Your task to perform on an android device: change alarm snooze length Image 0: 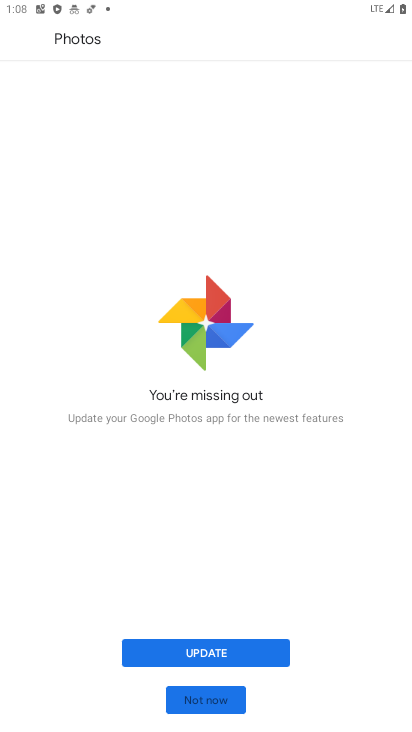
Step 0: click (199, 641)
Your task to perform on an android device: change alarm snooze length Image 1: 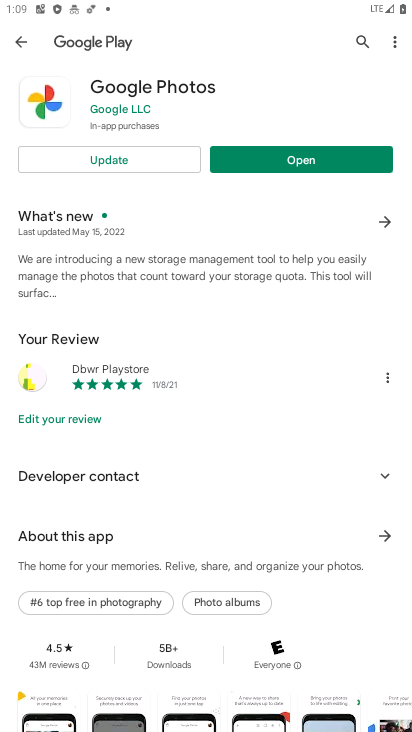
Step 1: click (276, 146)
Your task to perform on an android device: change alarm snooze length Image 2: 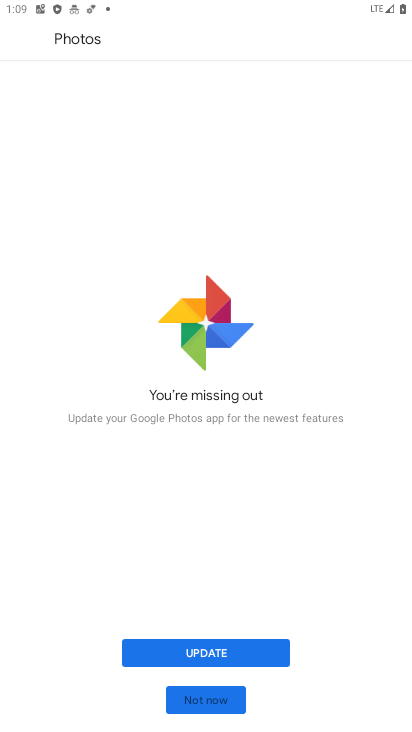
Step 2: press home button
Your task to perform on an android device: change alarm snooze length Image 3: 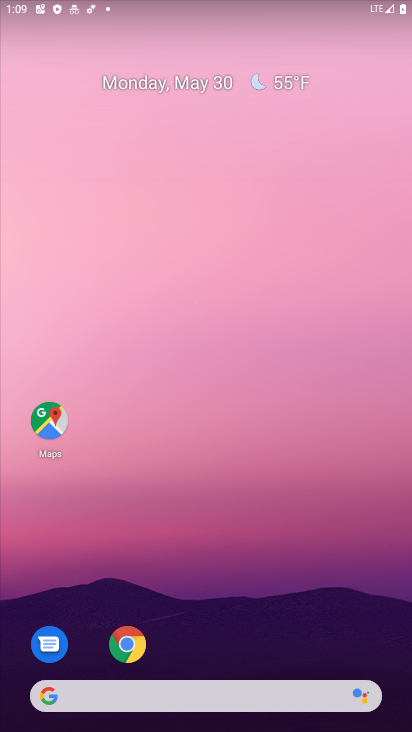
Step 3: click (298, 607)
Your task to perform on an android device: change alarm snooze length Image 4: 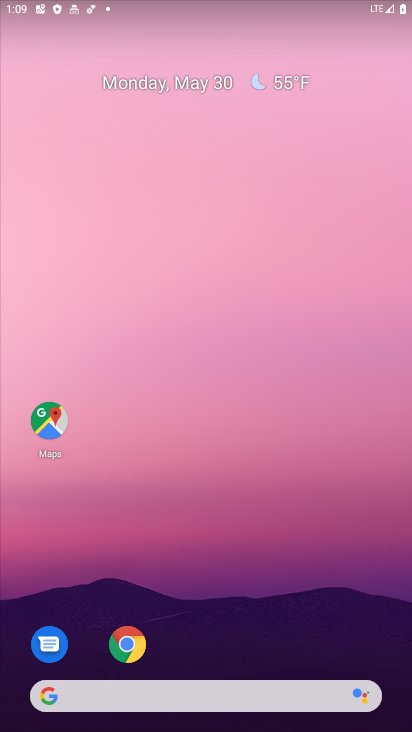
Step 4: drag from (298, 607) to (206, 46)
Your task to perform on an android device: change alarm snooze length Image 5: 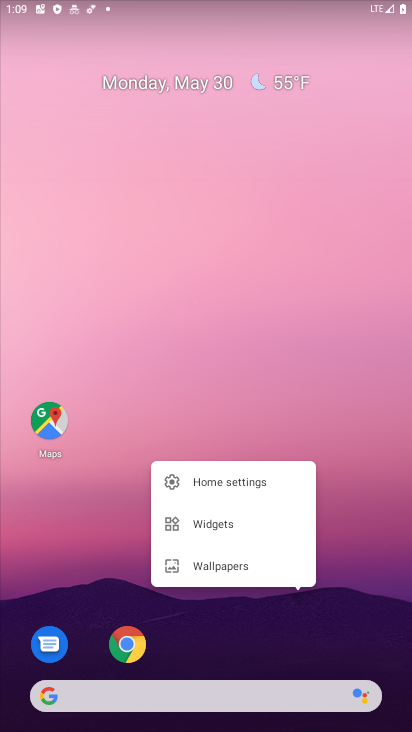
Step 5: click (206, 46)
Your task to perform on an android device: change alarm snooze length Image 6: 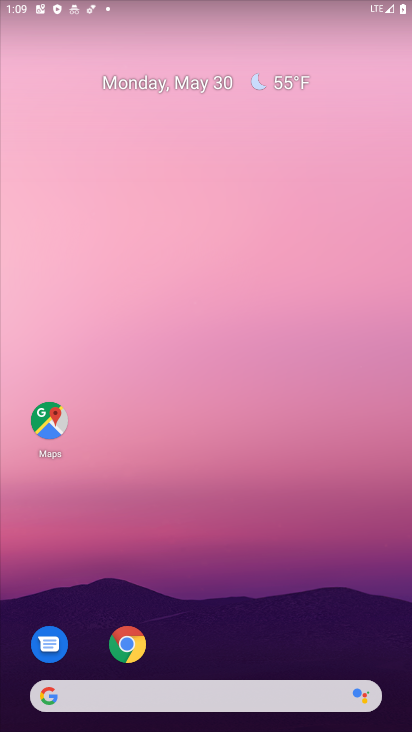
Step 6: drag from (292, 606) to (188, 87)
Your task to perform on an android device: change alarm snooze length Image 7: 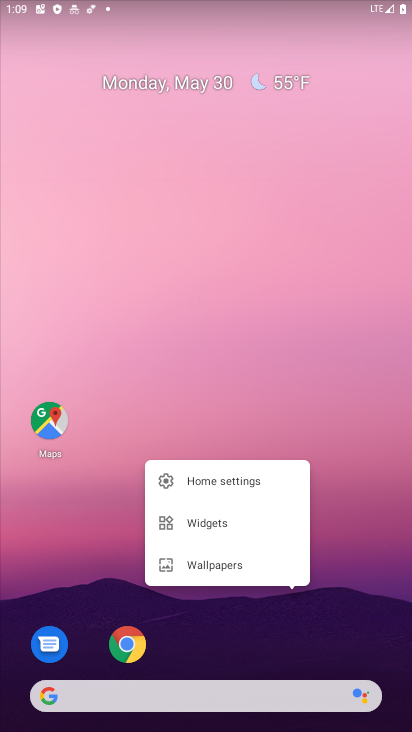
Step 7: click (328, 346)
Your task to perform on an android device: change alarm snooze length Image 8: 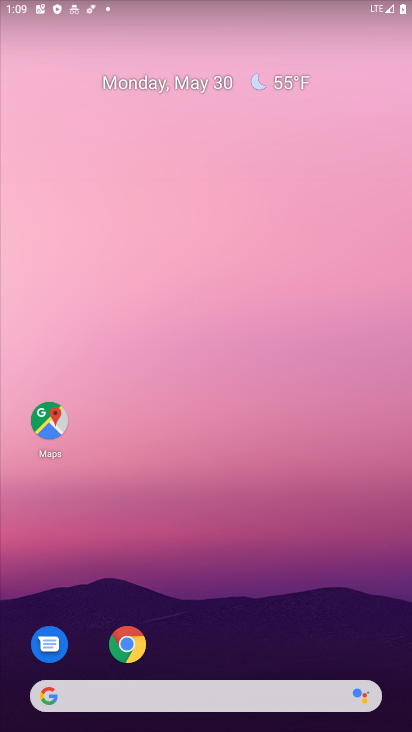
Step 8: drag from (282, 563) to (174, 28)
Your task to perform on an android device: change alarm snooze length Image 9: 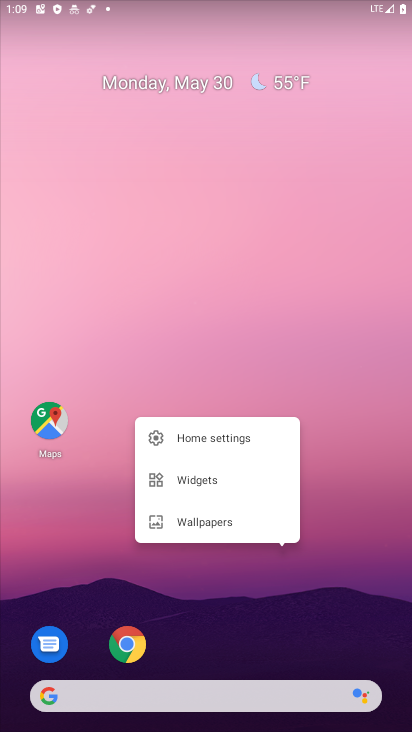
Step 9: click (271, 269)
Your task to perform on an android device: change alarm snooze length Image 10: 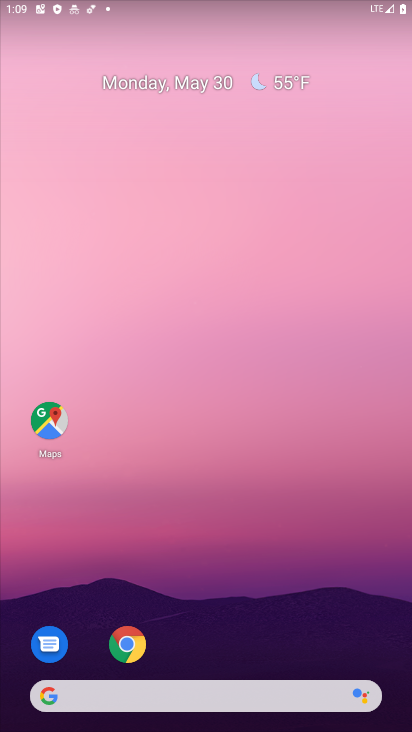
Step 10: drag from (257, 572) to (229, 71)
Your task to perform on an android device: change alarm snooze length Image 11: 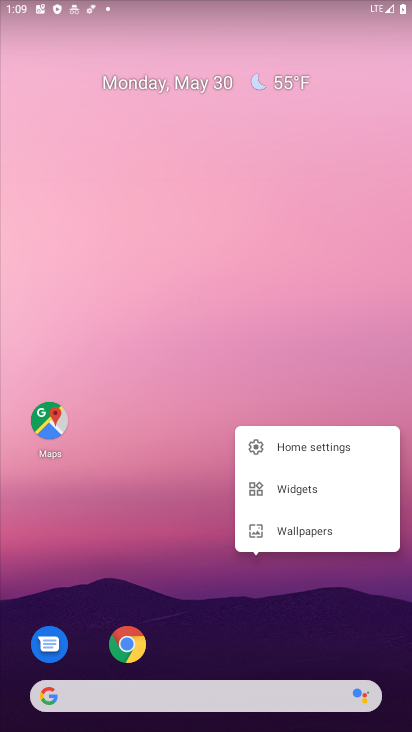
Step 11: click (129, 489)
Your task to perform on an android device: change alarm snooze length Image 12: 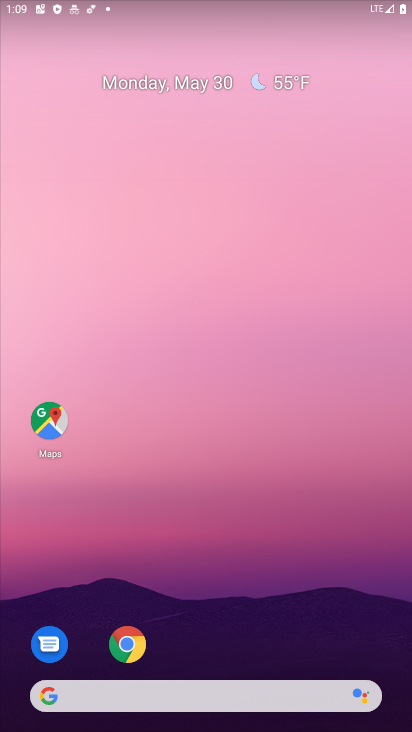
Step 12: drag from (227, 599) to (239, 48)
Your task to perform on an android device: change alarm snooze length Image 13: 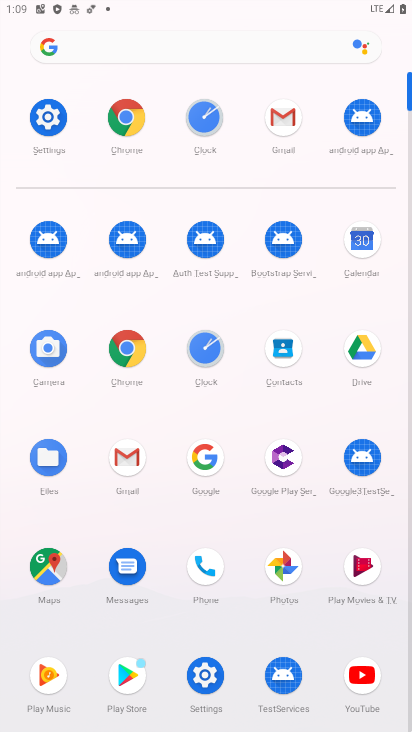
Step 13: click (192, 154)
Your task to perform on an android device: change alarm snooze length Image 14: 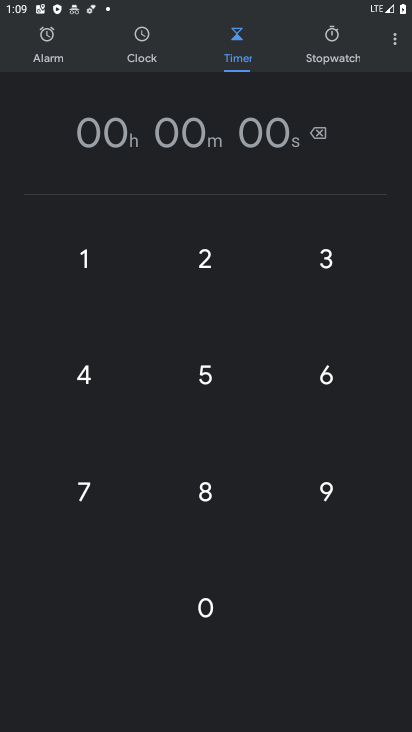
Step 14: task complete